Your task to perform on an android device: Show me popular games on the Play Store Image 0: 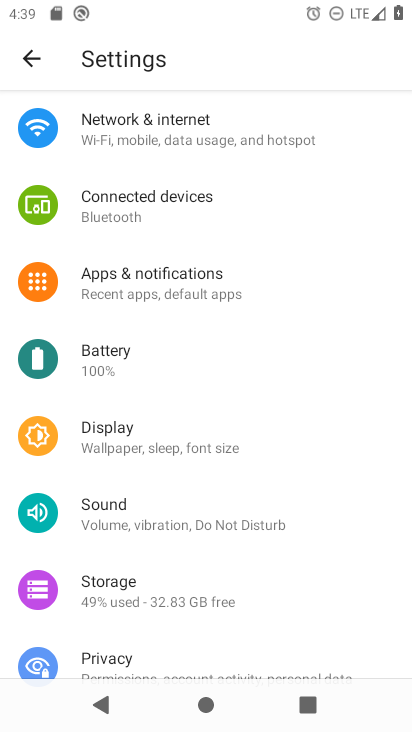
Step 0: press home button
Your task to perform on an android device: Show me popular games on the Play Store Image 1: 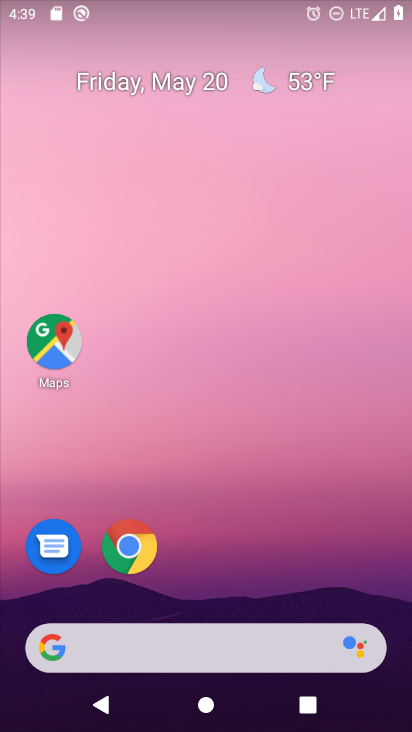
Step 1: drag from (285, 544) to (304, 134)
Your task to perform on an android device: Show me popular games on the Play Store Image 2: 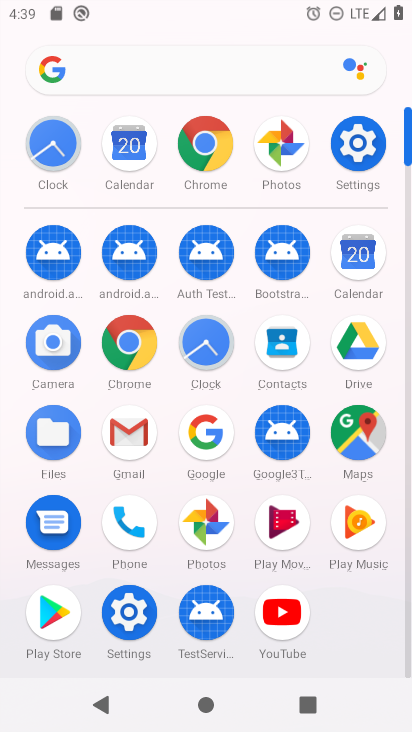
Step 2: click (72, 611)
Your task to perform on an android device: Show me popular games on the Play Store Image 3: 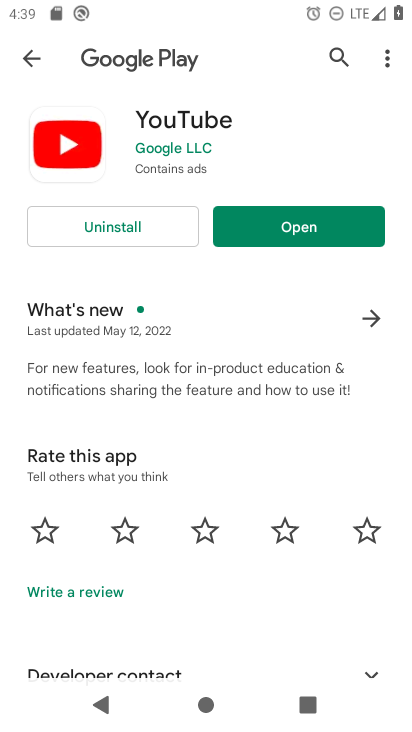
Step 3: click (31, 57)
Your task to perform on an android device: Show me popular games on the Play Store Image 4: 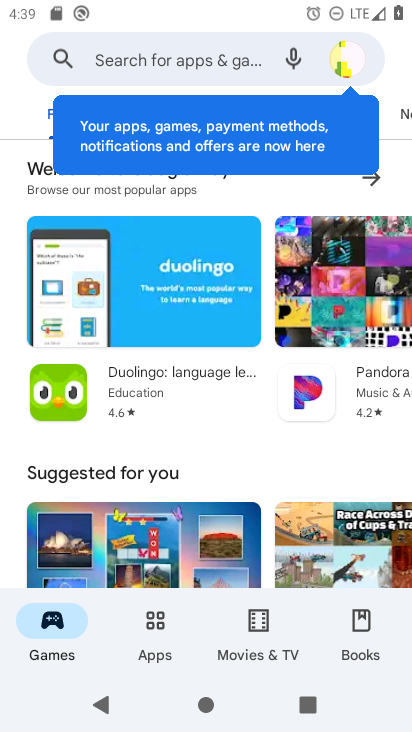
Step 4: task complete